Your task to perform on an android device: Open my contact list Image 0: 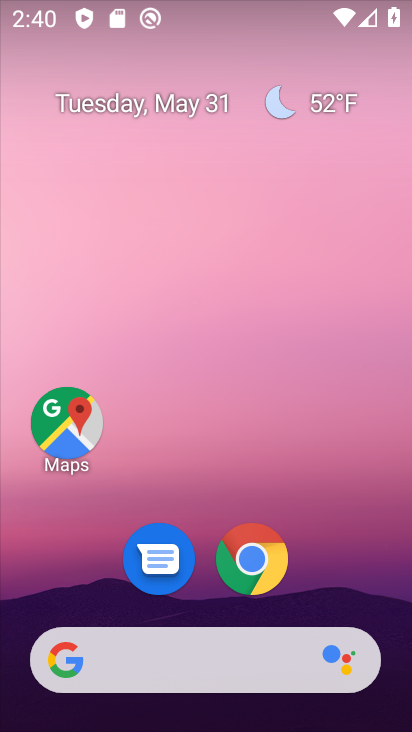
Step 0: drag from (208, 549) to (179, 126)
Your task to perform on an android device: Open my contact list Image 1: 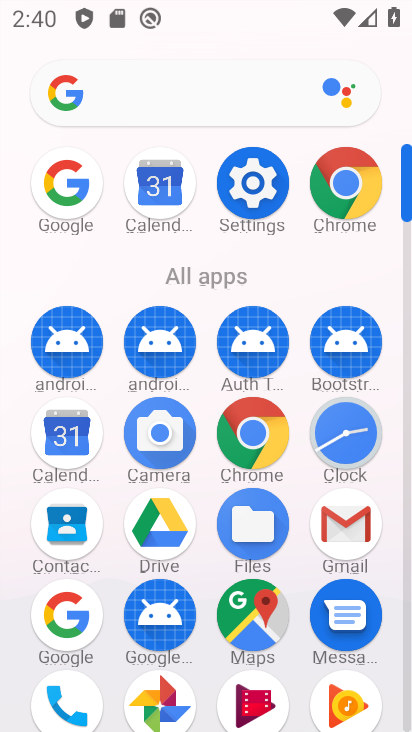
Step 1: click (67, 527)
Your task to perform on an android device: Open my contact list Image 2: 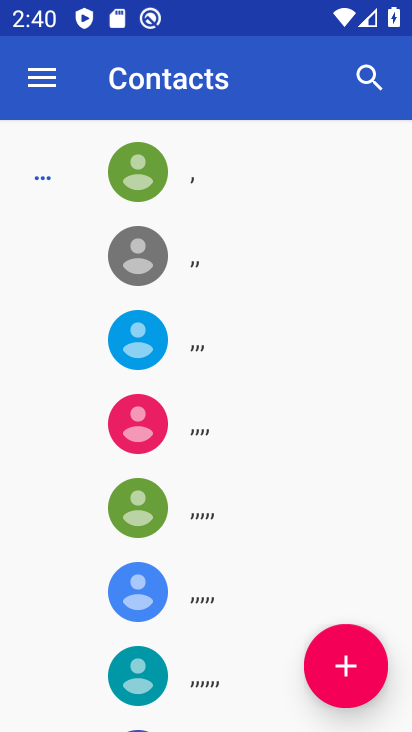
Step 2: task complete